Your task to perform on an android device: Open the settings Image 0: 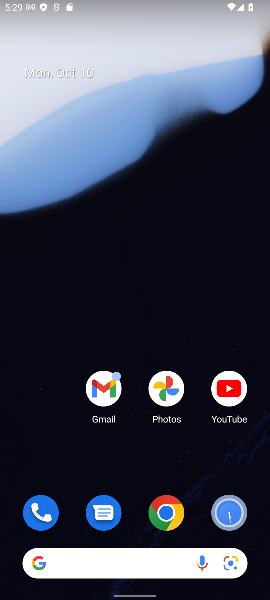
Step 0: drag from (132, 539) to (118, 57)
Your task to perform on an android device: Open the settings Image 1: 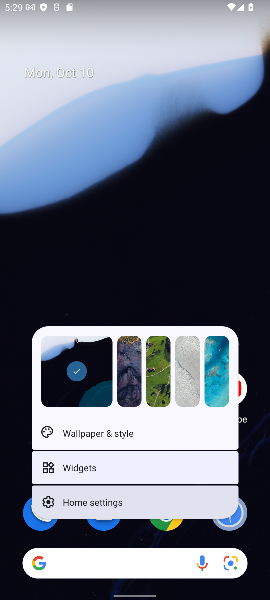
Step 1: click (112, 114)
Your task to perform on an android device: Open the settings Image 2: 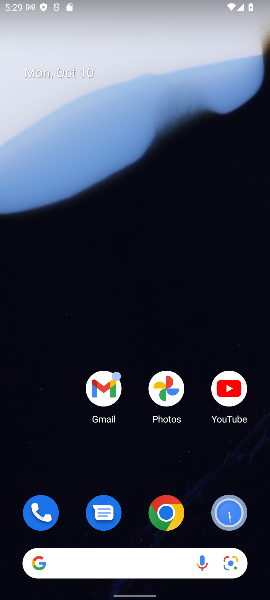
Step 2: drag from (129, 536) to (149, 54)
Your task to perform on an android device: Open the settings Image 3: 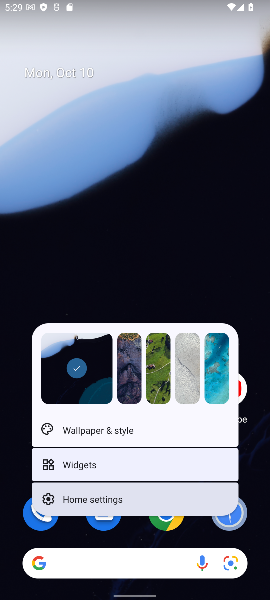
Step 3: click (151, 106)
Your task to perform on an android device: Open the settings Image 4: 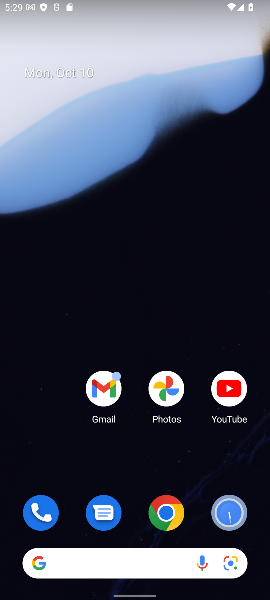
Step 4: drag from (132, 547) to (137, 119)
Your task to perform on an android device: Open the settings Image 5: 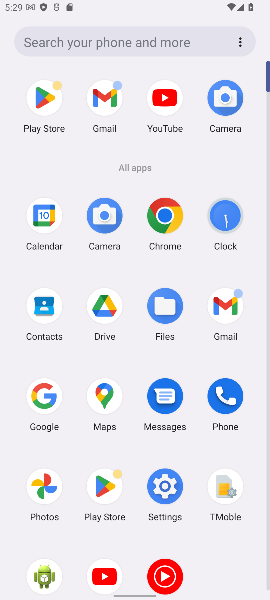
Step 5: click (161, 518)
Your task to perform on an android device: Open the settings Image 6: 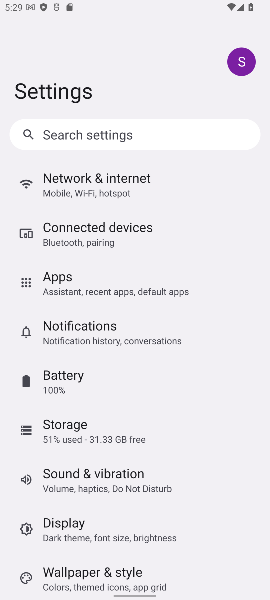
Step 6: task complete